Your task to perform on an android device: Search for Italian restaurants on Maps Image 0: 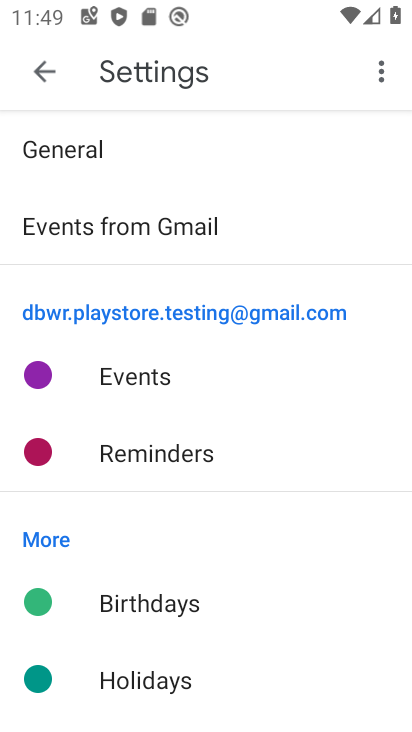
Step 0: press home button
Your task to perform on an android device: Search for Italian restaurants on Maps Image 1: 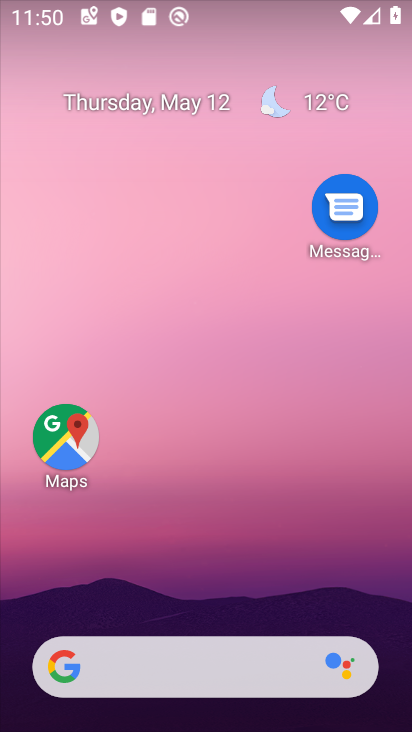
Step 1: drag from (182, 549) to (324, 0)
Your task to perform on an android device: Search for Italian restaurants on Maps Image 2: 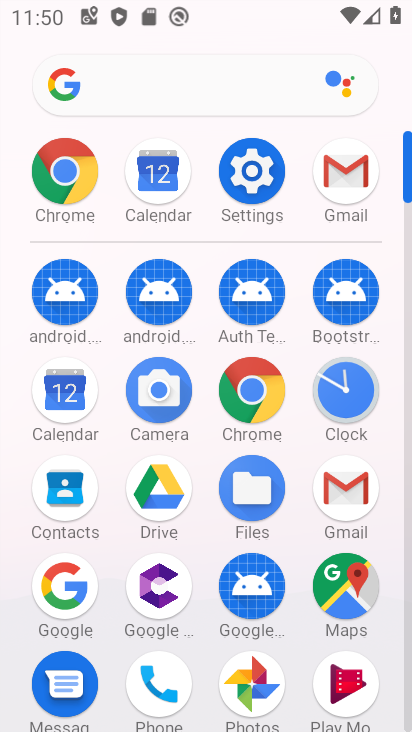
Step 2: click (319, 596)
Your task to perform on an android device: Search for Italian restaurants on Maps Image 3: 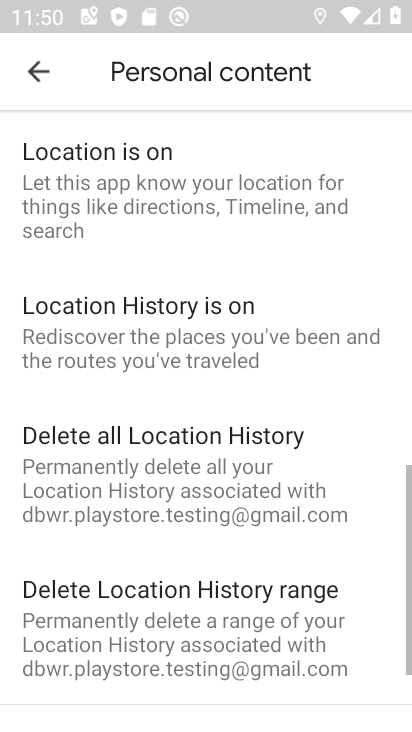
Step 3: click (25, 84)
Your task to perform on an android device: Search for Italian restaurants on Maps Image 4: 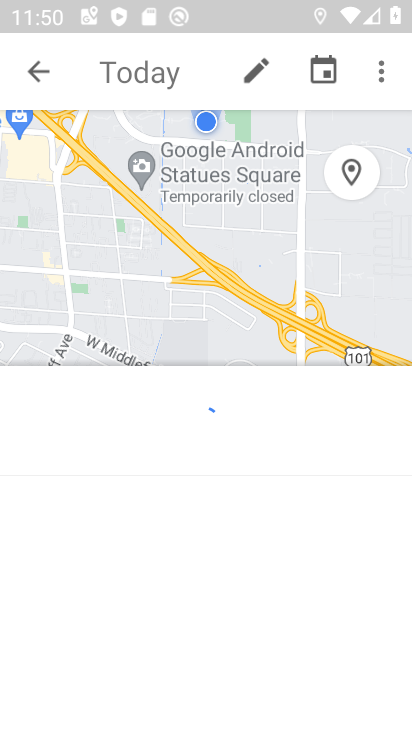
Step 4: click (25, 84)
Your task to perform on an android device: Search for Italian restaurants on Maps Image 5: 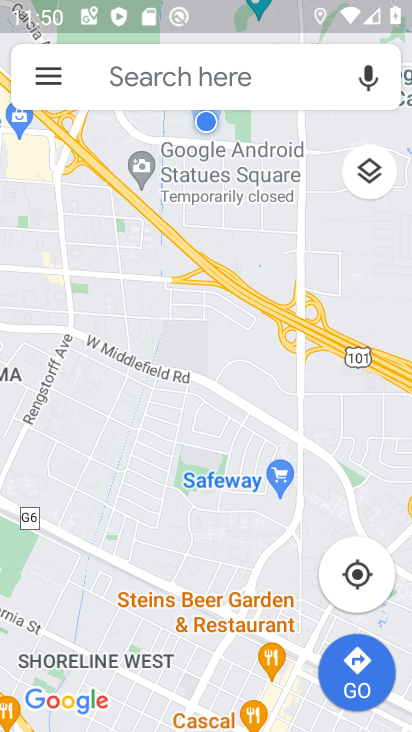
Step 5: click (137, 83)
Your task to perform on an android device: Search for Italian restaurants on Maps Image 6: 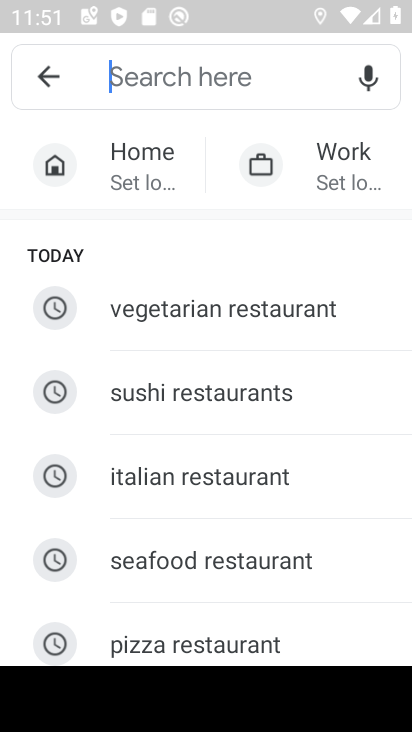
Step 6: type "Italian restaurants"
Your task to perform on an android device: Search for Italian restaurants on Maps Image 7: 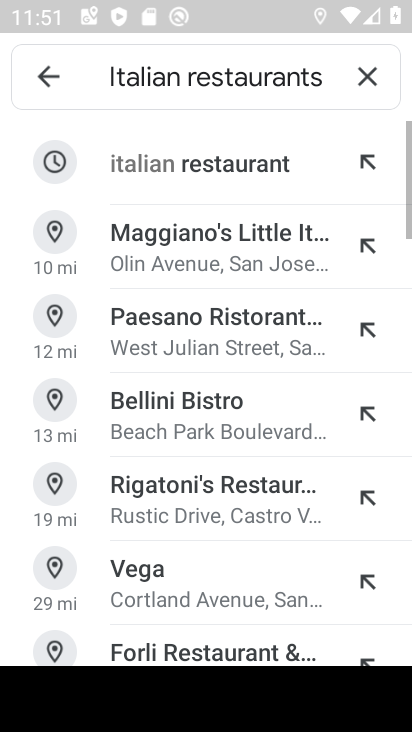
Step 7: click (163, 145)
Your task to perform on an android device: Search for Italian restaurants on Maps Image 8: 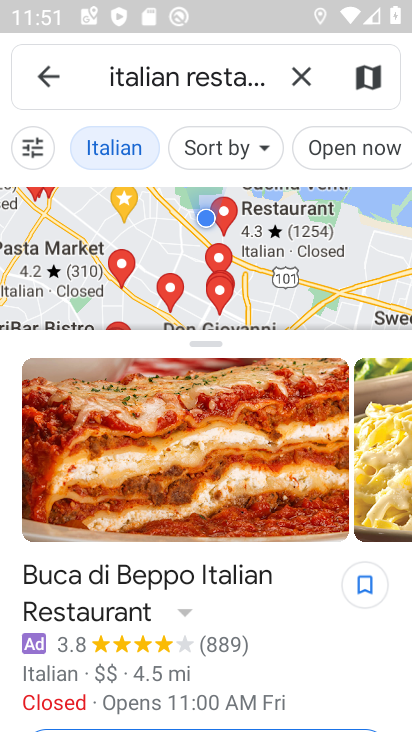
Step 8: task complete